Your task to perform on an android device: turn off picture-in-picture Image 0: 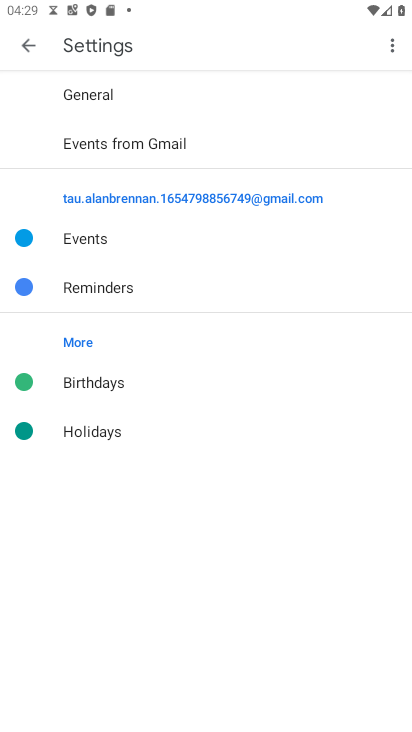
Step 0: press home button
Your task to perform on an android device: turn off picture-in-picture Image 1: 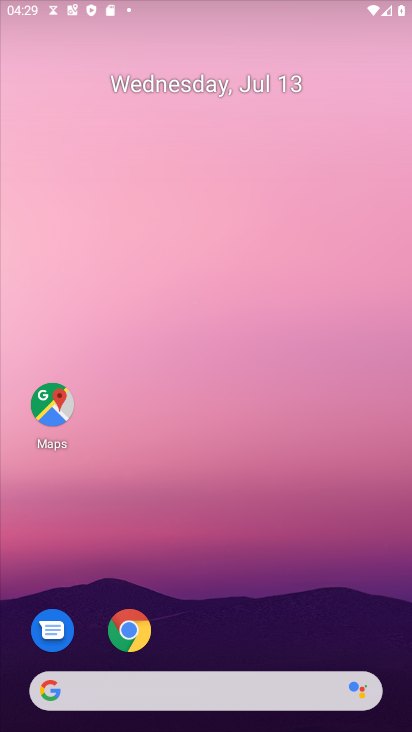
Step 1: drag from (255, 684) to (337, 52)
Your task to perform on an android device: turn off picture-in-picture Image 2: 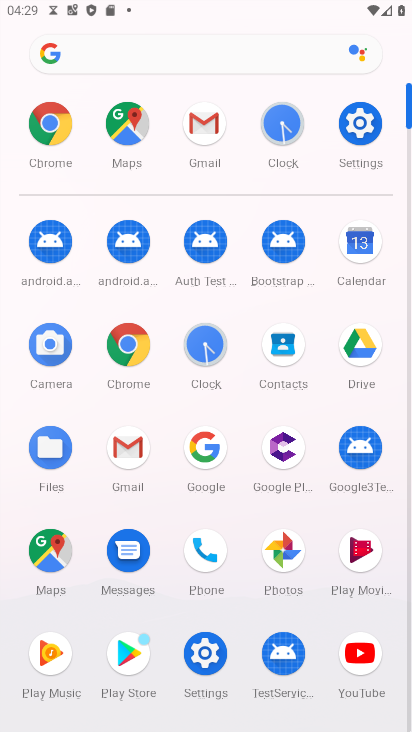
Step 2: click (367, 120)
Your task to perform on an android device: turn off picture-in-picture Image 3: 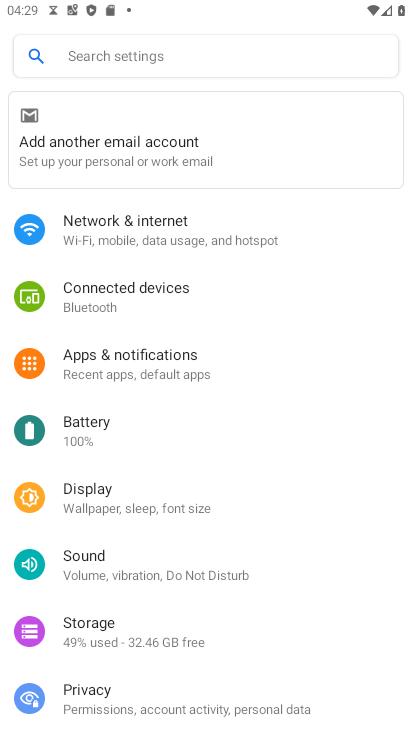
Step 3: drag from (187, 703) to (257, 195)
Your task to perform on an android device: turn off picture-in-picture Image 4: 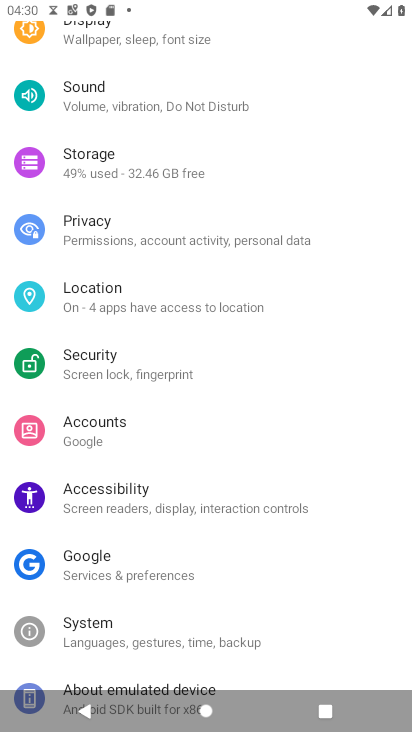
Step 4: drag from (182, 184) to (176, 608)
Your task to perform on an android device: turn off picture-in-picture Image 5: 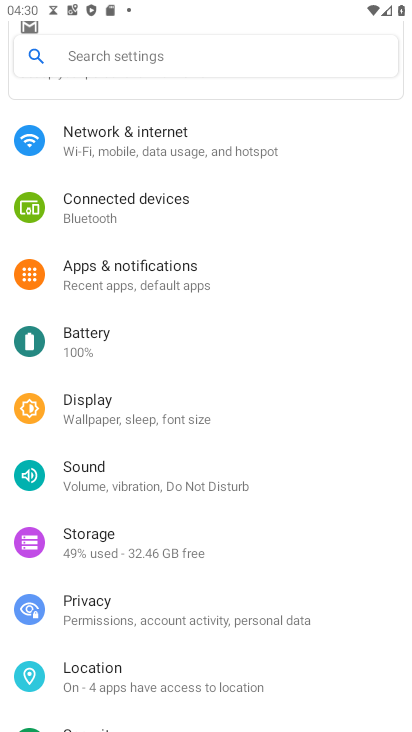
Step 5: click (162, 271)
Your task to perform on an android device: turn off picture-in-picture Image 6: 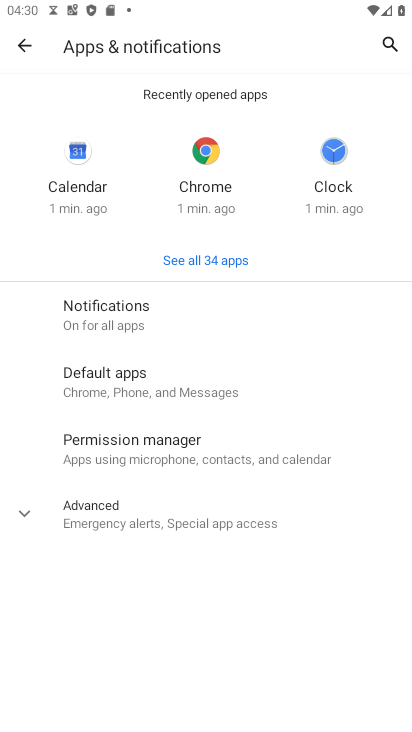
Step 6: click (140, 523)
Your task to perform on an android device: turn off picture-in-picture Image 7: 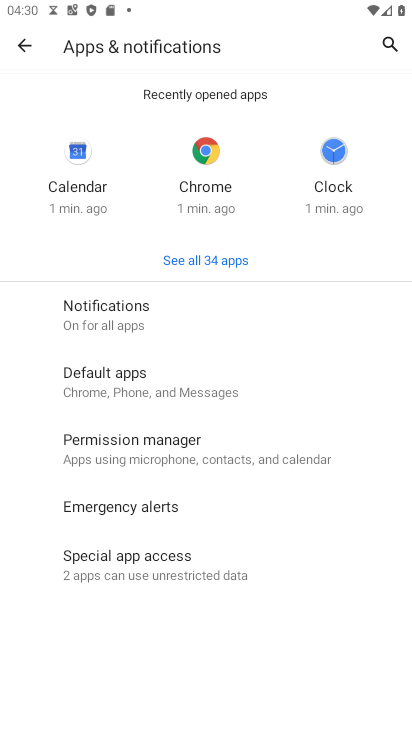
Step 7: click (124, 573)
Your task to perform on an android device: turn off picture-in-picture Image 8: 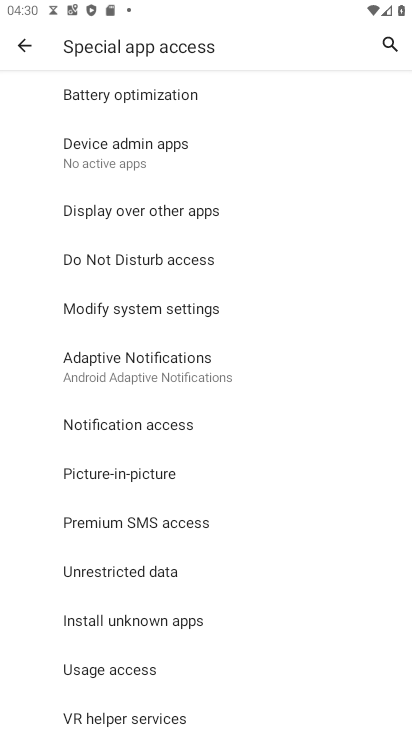
Step 8: click (141, 476)
Your task to perform on an android device: turn off picture-in-picture Image 9: 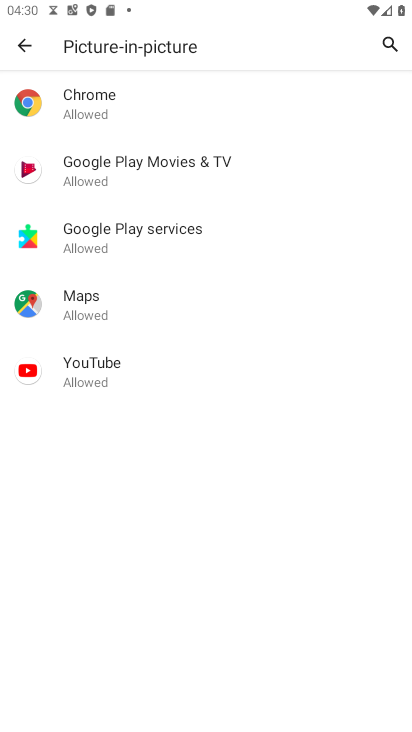
Step 9: click (183, 95)
Your task to perform on an android device: turn off picture-in-picture Image 10: 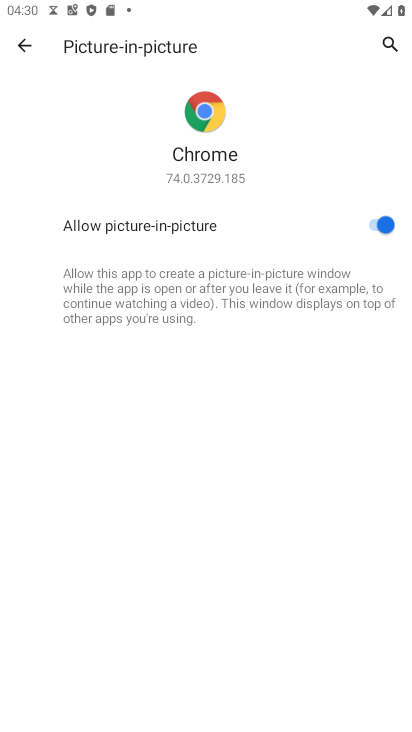
Step 10: click (380, 228)
Your task to perform on an android device: turn off picture-in-picture Image 11: 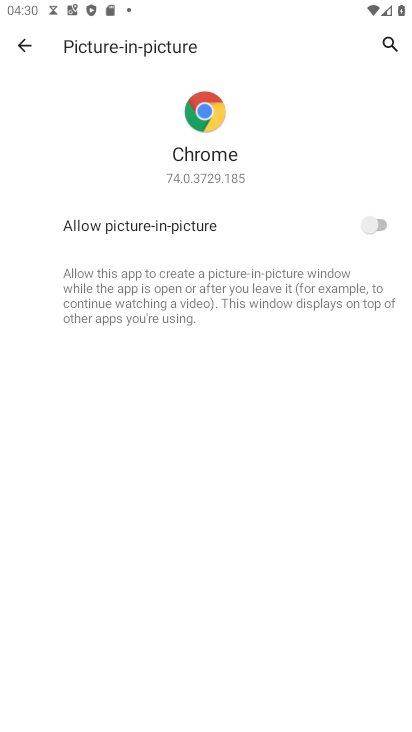
Step 11: press back button
Your task to perform on an android device: turn off picture-in-picture Image 12: 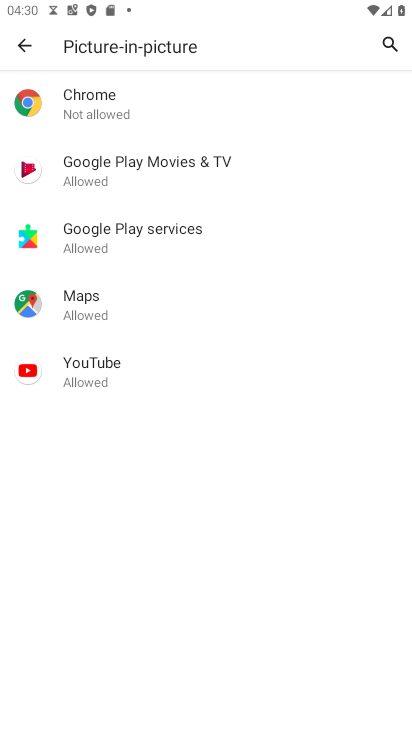
Step 12: click (125, 181)
Your task to perform on an android device: turn off picture-in-picture Image 13: 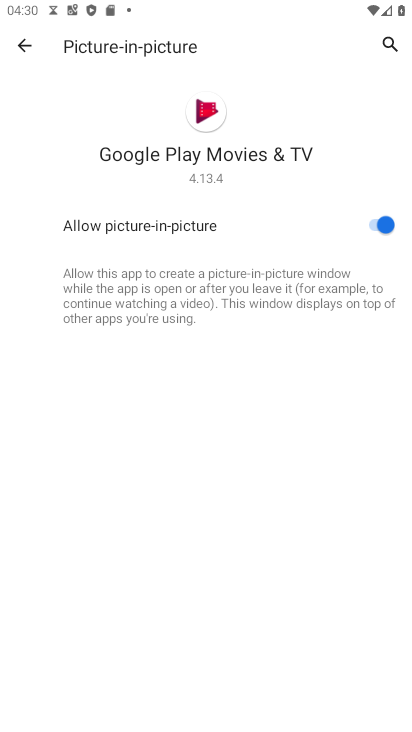
Step 13: click (378, 221)
Your task to perform on an android device: turn off picture-in-picture Image 14: 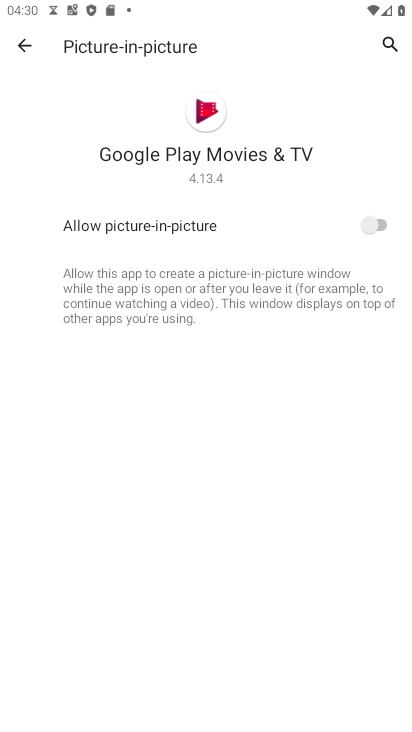
Step 14: press back button
Your task to perform on an android device: turn off picture-in-picture Image 15: 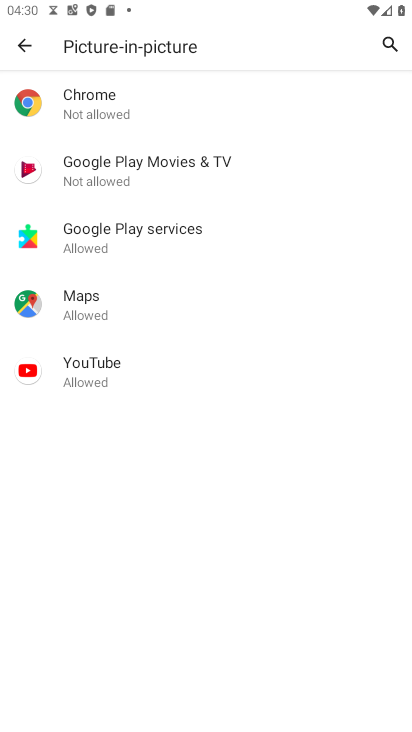
Step 15: click (117, 250)
Your task to perform on an android device: turn off picture-in-picture Image 16: 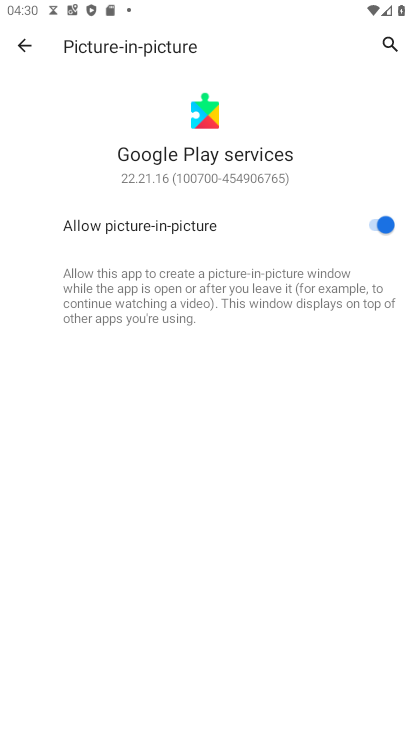
Step 16: click (370, 222)
Your task to perform on an android device: turn off picture-in-picture Image 17: 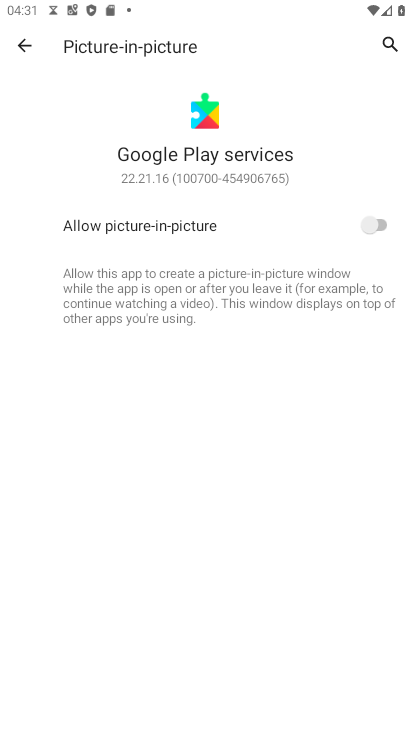
Step 17: press back button
Your task to perform on an android device: turn off picture-in-picture Image 18: 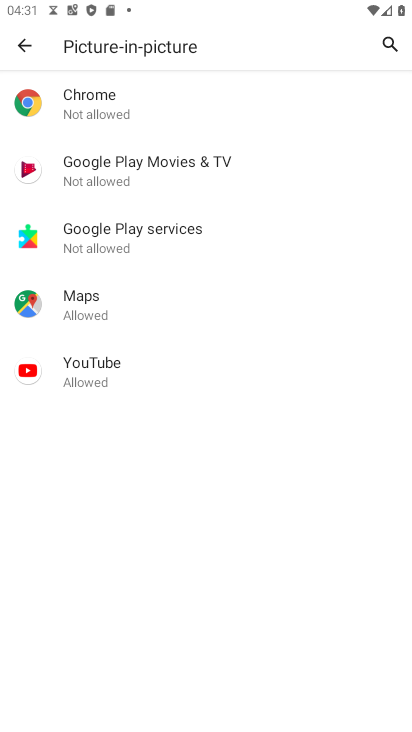
Step 18: click (143, 302)
Your task to perform on an android device: turn off picture-in-picture Image 19: 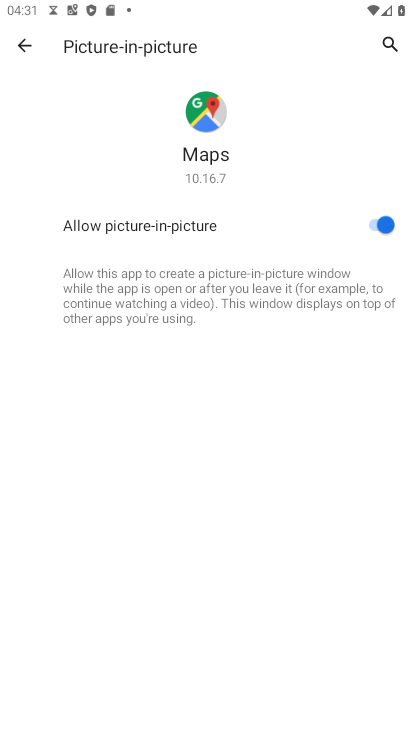
Step 19: click (376, 224)
Your task to perform on an android device: turn off picture-in-picture Image 20: 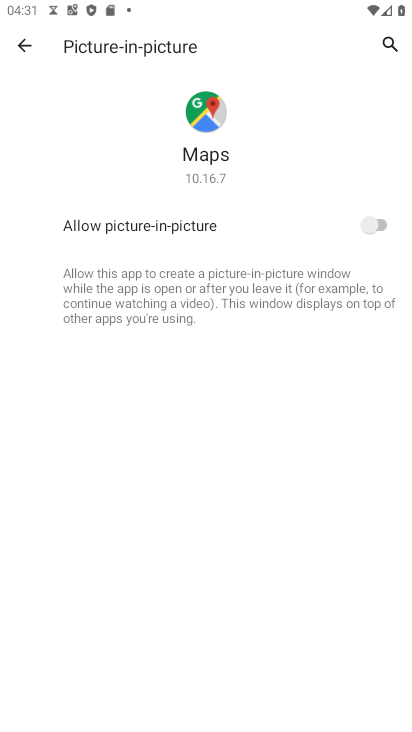
Step 20: press back button
Your task to perform on an android device: turn off picture-in-picture Image 21: 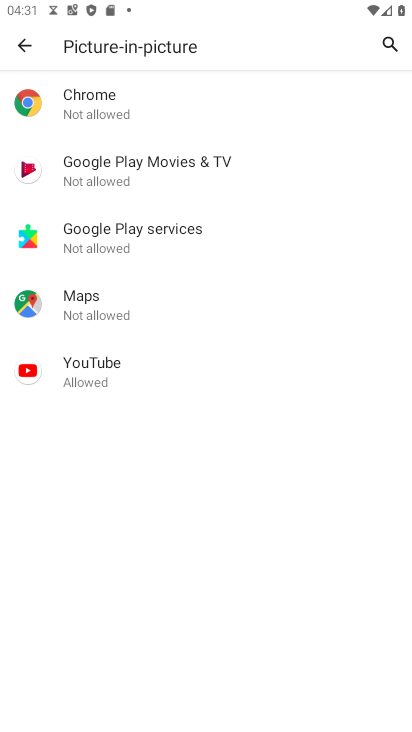
Step 21: click (108, 363)
Your task to perform on an android device: turn off picture-in-picture Image 22: 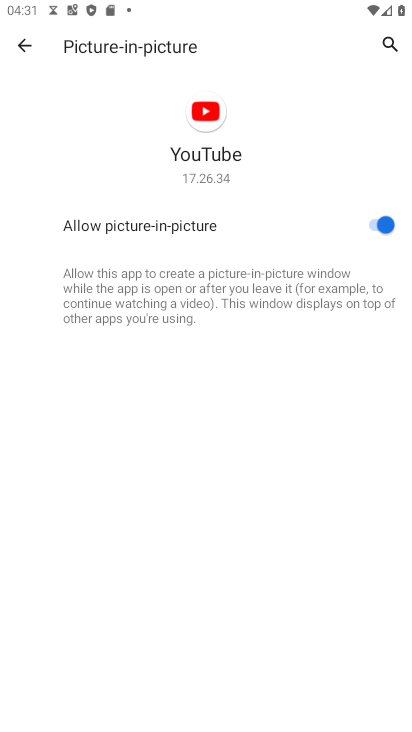
Step 22: click (373, 225)
Your task to perform on an android device: turn off picture-in-picture Image 23: 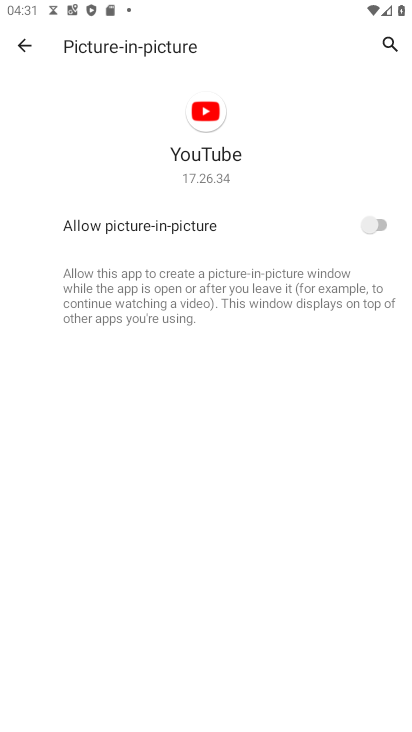
Step 23: task complete